Your task to perform on an android device: turn on wifi Image 0: 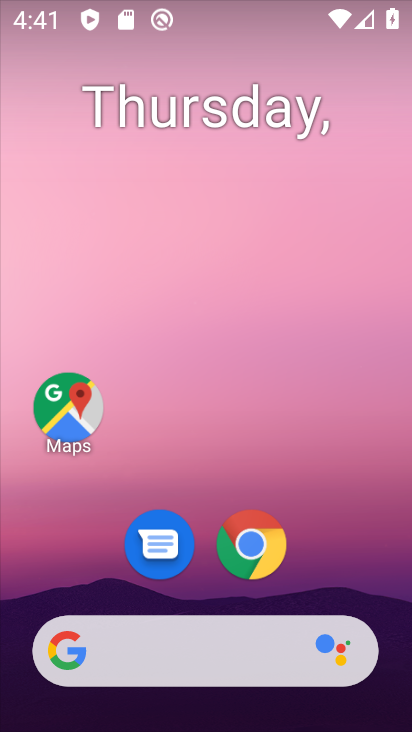
Step 0: drag from (347, 551) to (359, 90)
Your task to perform on an android device: turn on wifi Image 1: 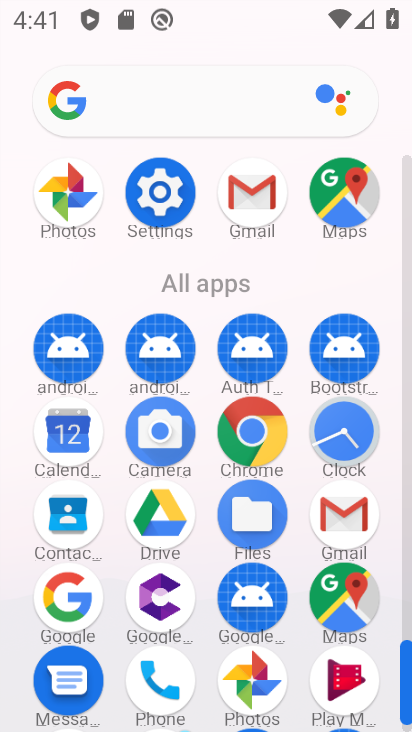
Step 1: click (168, 192)
Your task to perform on an android device: turn on wifi Image 2: 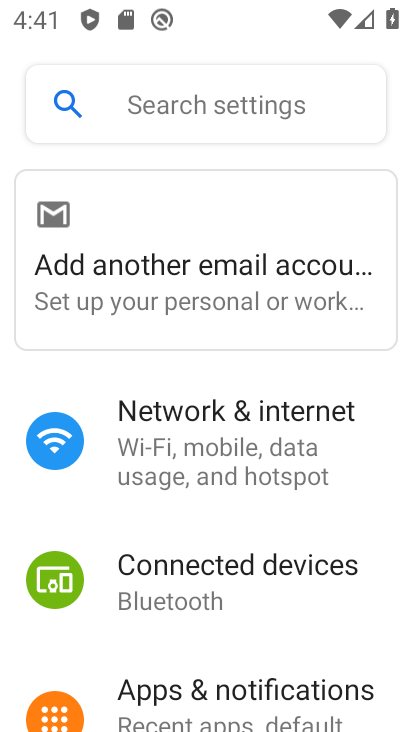
Step 2: click (194, 466)
Your task to perform on an android device: turn on wifi Image 3: 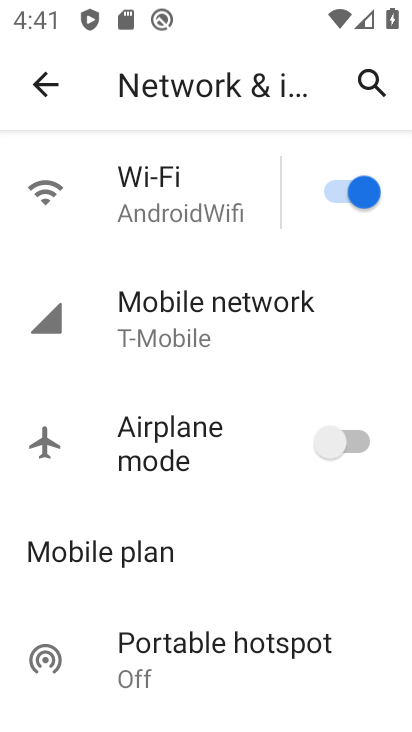
Step 3: click (136, 174)
Your task to perform on an android device: turn on wifi Image 4: 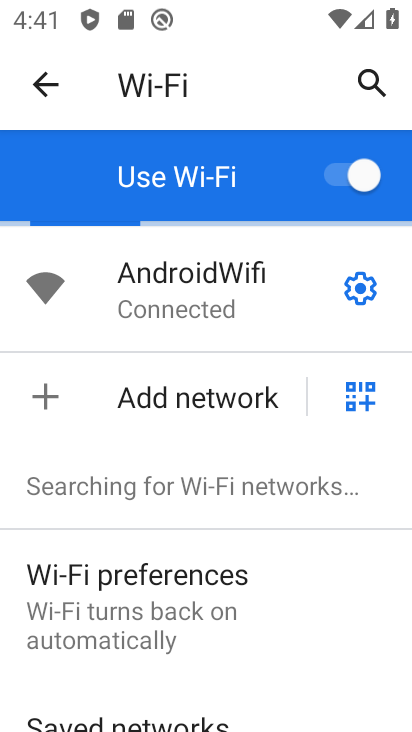
Step 4: task complete